Your task to perform on an android device: Open Youtube and go to the subscriptions tab Image 0: 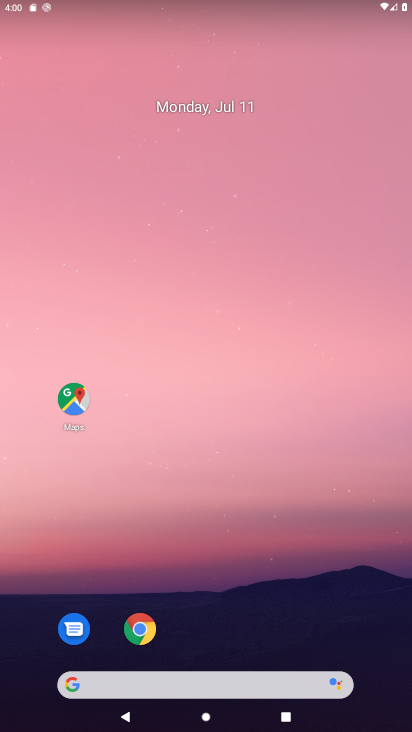
Step 0: drag from (395, 618) to (349, 125)
Your task to perform on an android device: Open Youtube and go to the subscriptions tab Image 1: 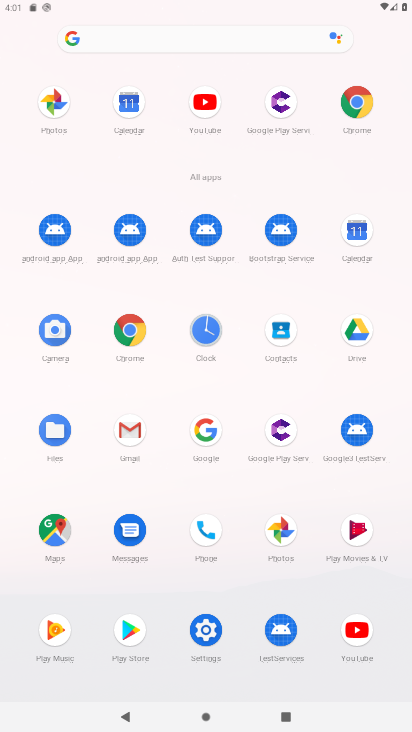
Step 1: click (357, 635)
Your task to perform on an android device: Open Youtube and go to the subscriptions tab Image 2: 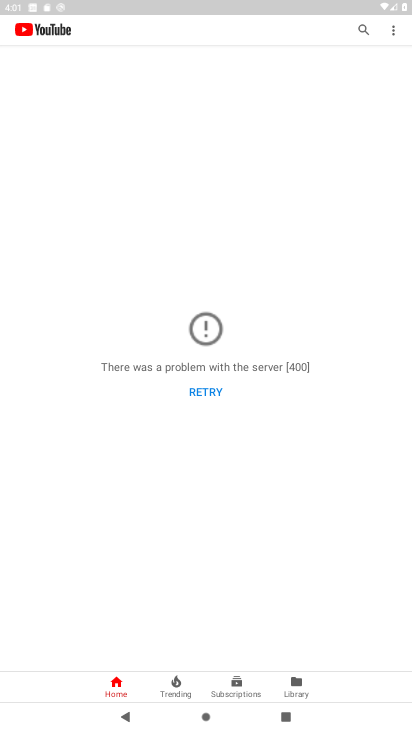
Step 2: click (228, 684)
Your task to perform on an android device: Open Youtube and go to the subscriptions tab Image 3: 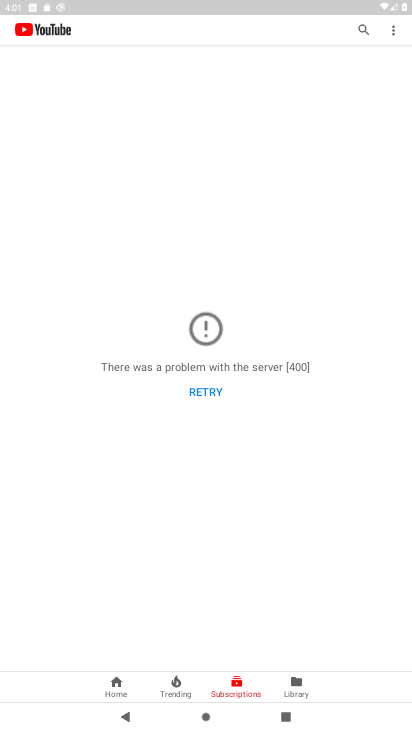
Step 3: task complete